Your task to perform on an android device: turn on sleep mode Image 0: 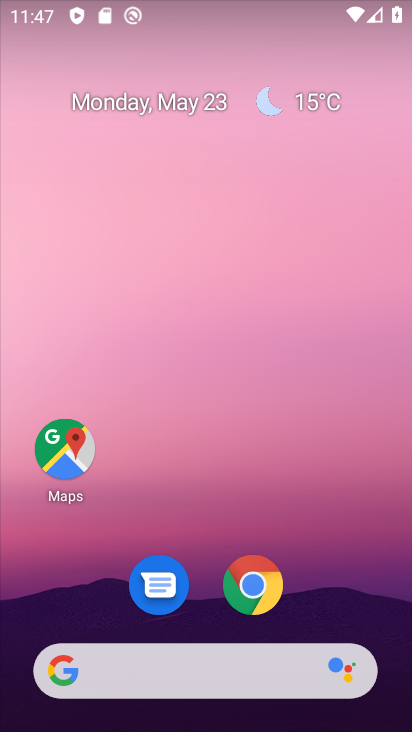
Step 0: drag from (203, 471) to (218, 54)
Your task to perform on an android device: turn on sleep mode Image 1: 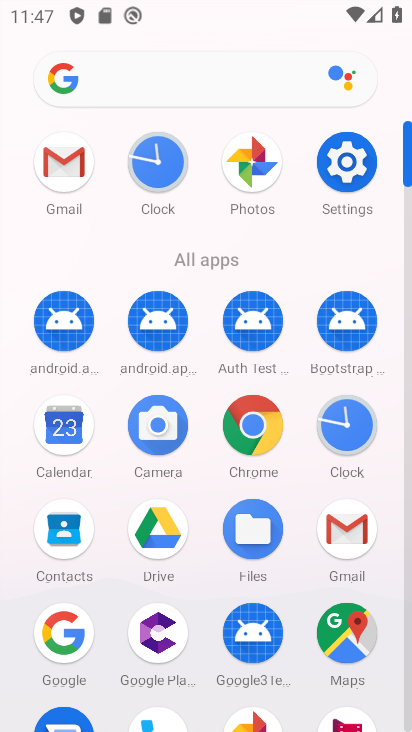
Step 1: click (342, 169)
Your task to perform on an android device: turn on sleep mode Image 2: 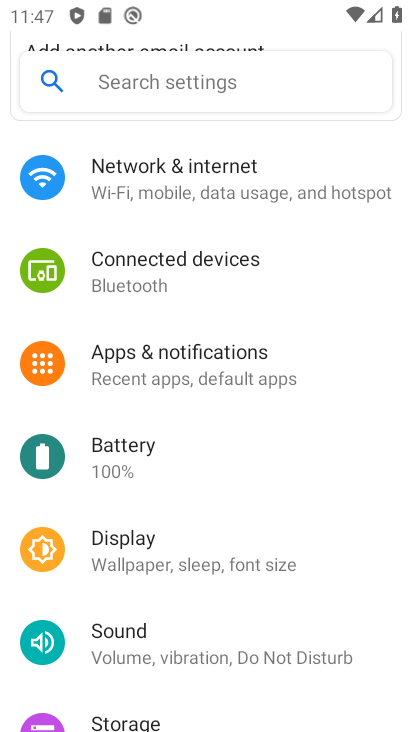
Step 2: click (212, 548)
Your task to perform on an android device: turn on sleep mode Image 3: 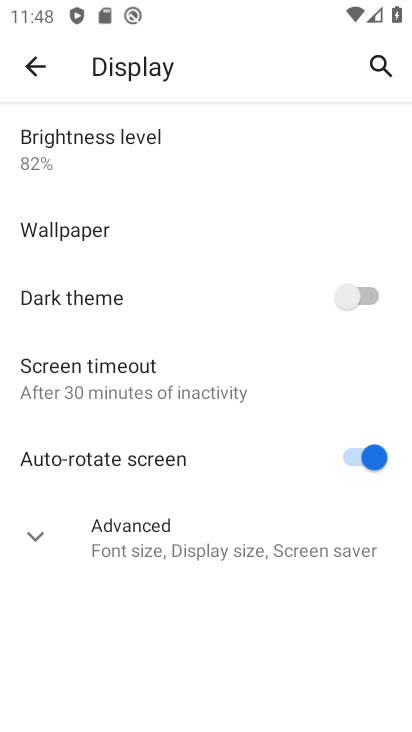
Step 3: click (39, 535)
Your task to perform on an android device: turn on sleep mode Image 4: 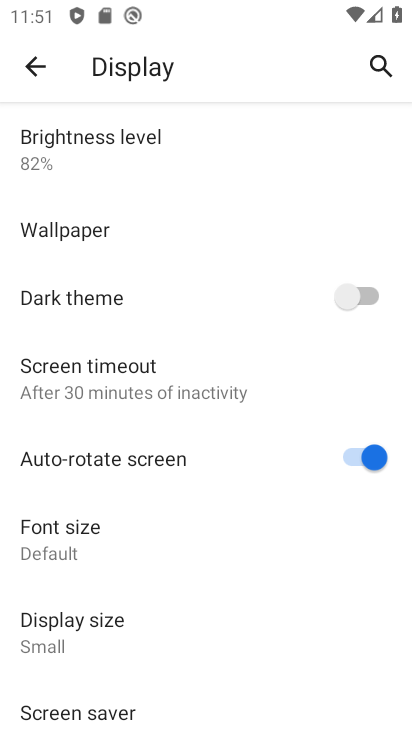
Step 4: task complete